Your task to perform on an android device: open app "TextNow: Call + Text Unlimited" (install if not already installed), go to login, and select forgot password Image 0: 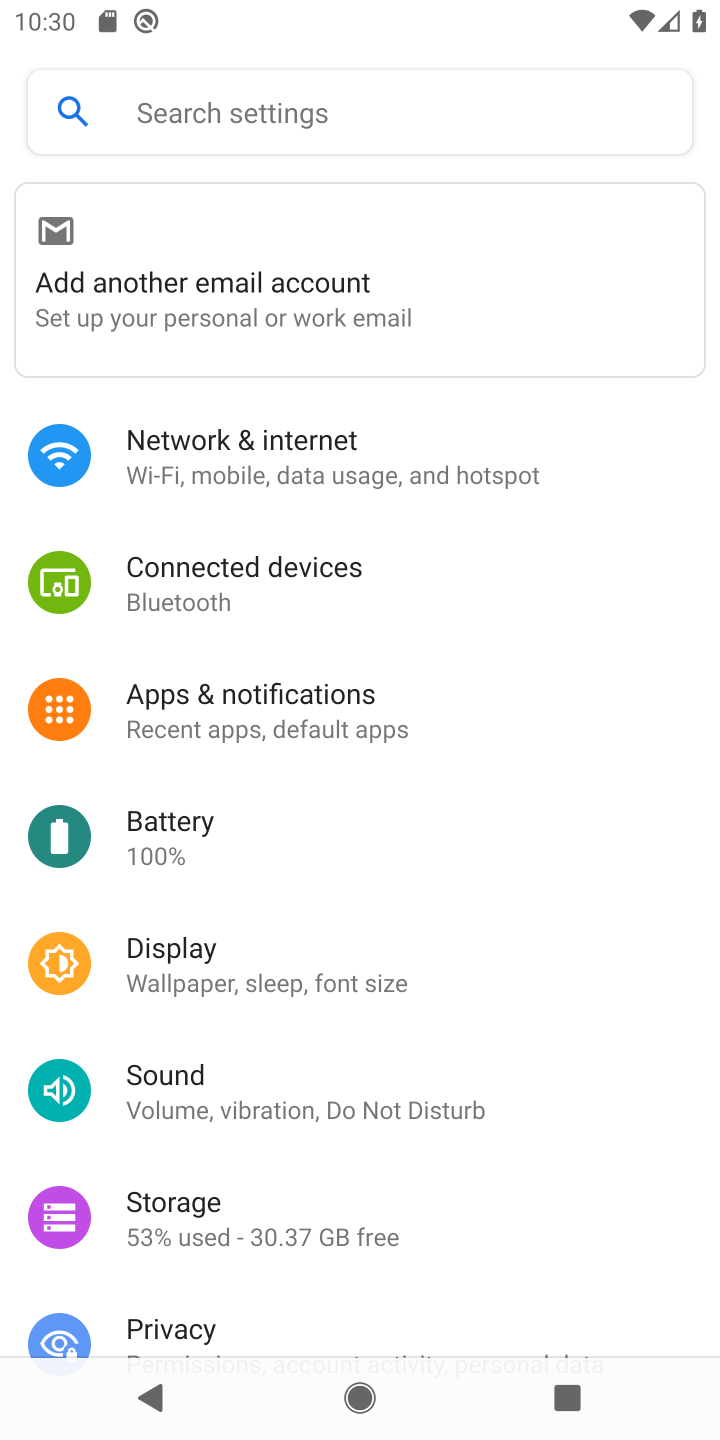
Step 0: press home button
Your task to perform on an android device: open app "TextNow: Call + Text Unlimited" (install if not already installed), go to login, and select forgot password Image 1: 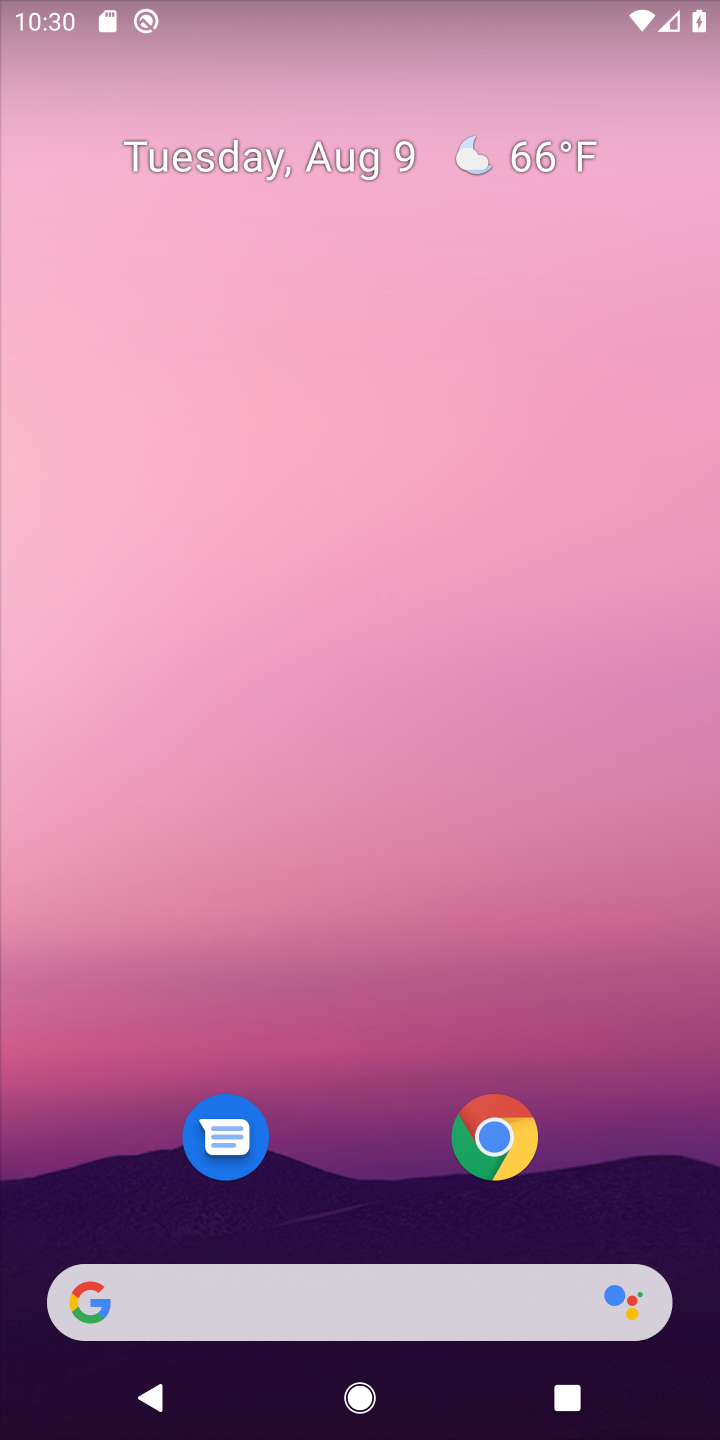
Step 1: drag from (291, 1081) to (301, 231)
Your task to perform on an android device: open app "TextNow: Call + Text Unlimited" (install if not already installed), go to login, and select forgot password Image 2: 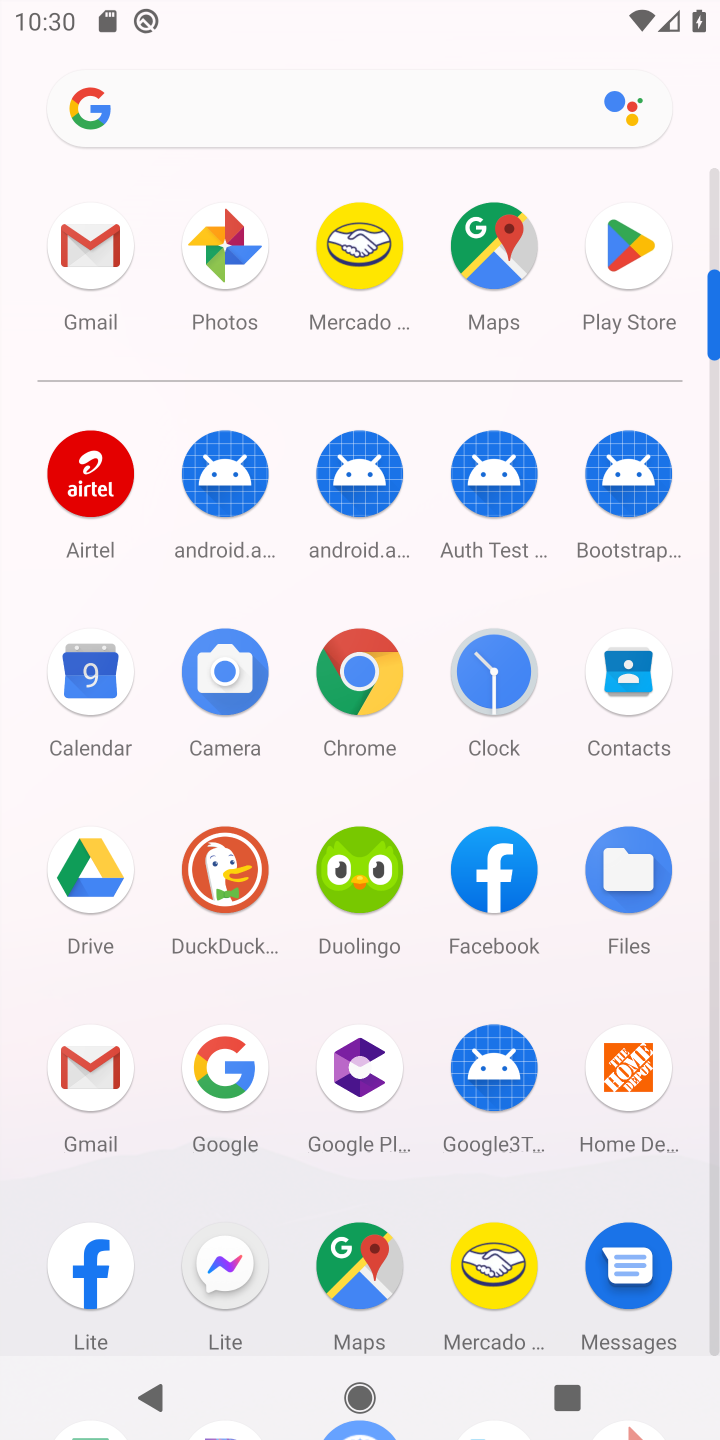
Step 2: click (605, 261)
Your task to perform on an android device: open app "TextNow: Call + Text Unlimited" (install if not already installed), go to login, and select forgot password Image 3: 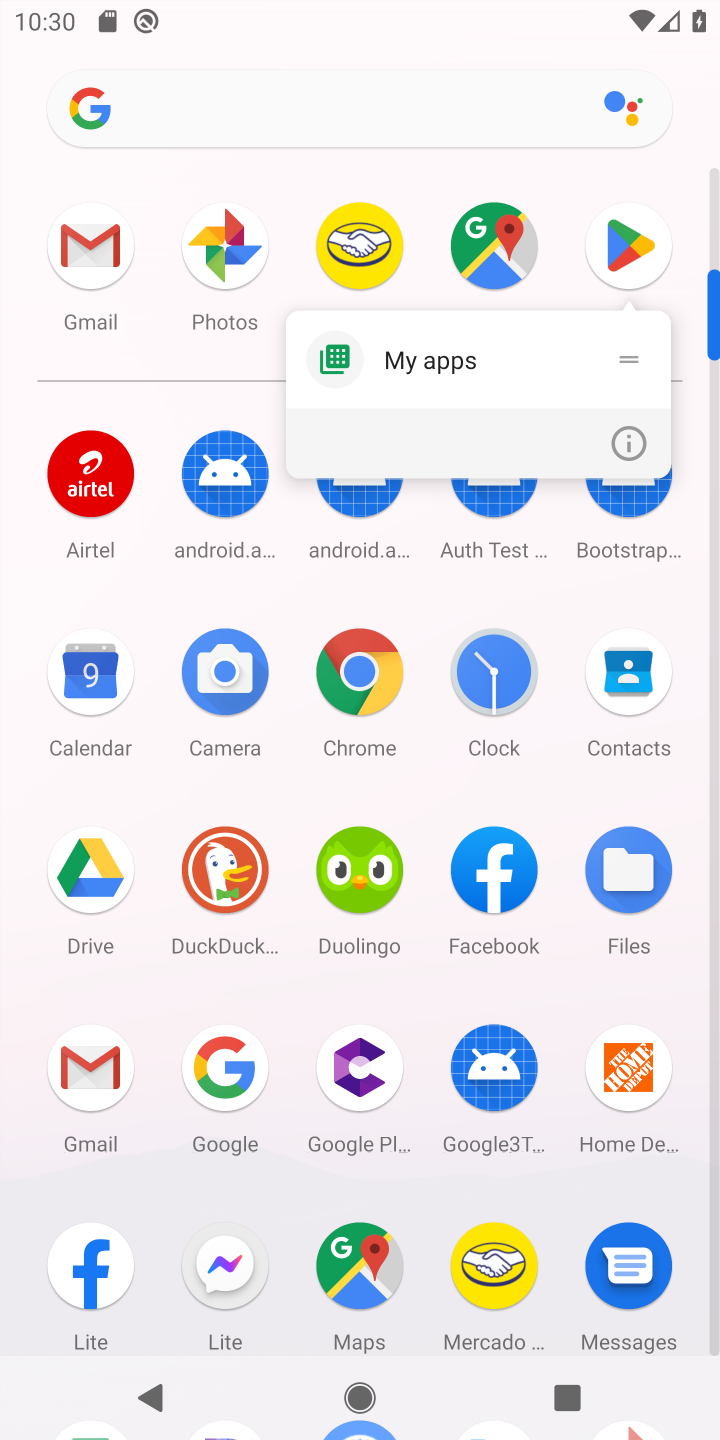
Step 3: click (616, 236)
Your task to perform on an android device: open app "TextNow: Call + Text Unlimited" (install if not already installed), go to login, and select forgot password Image 4: 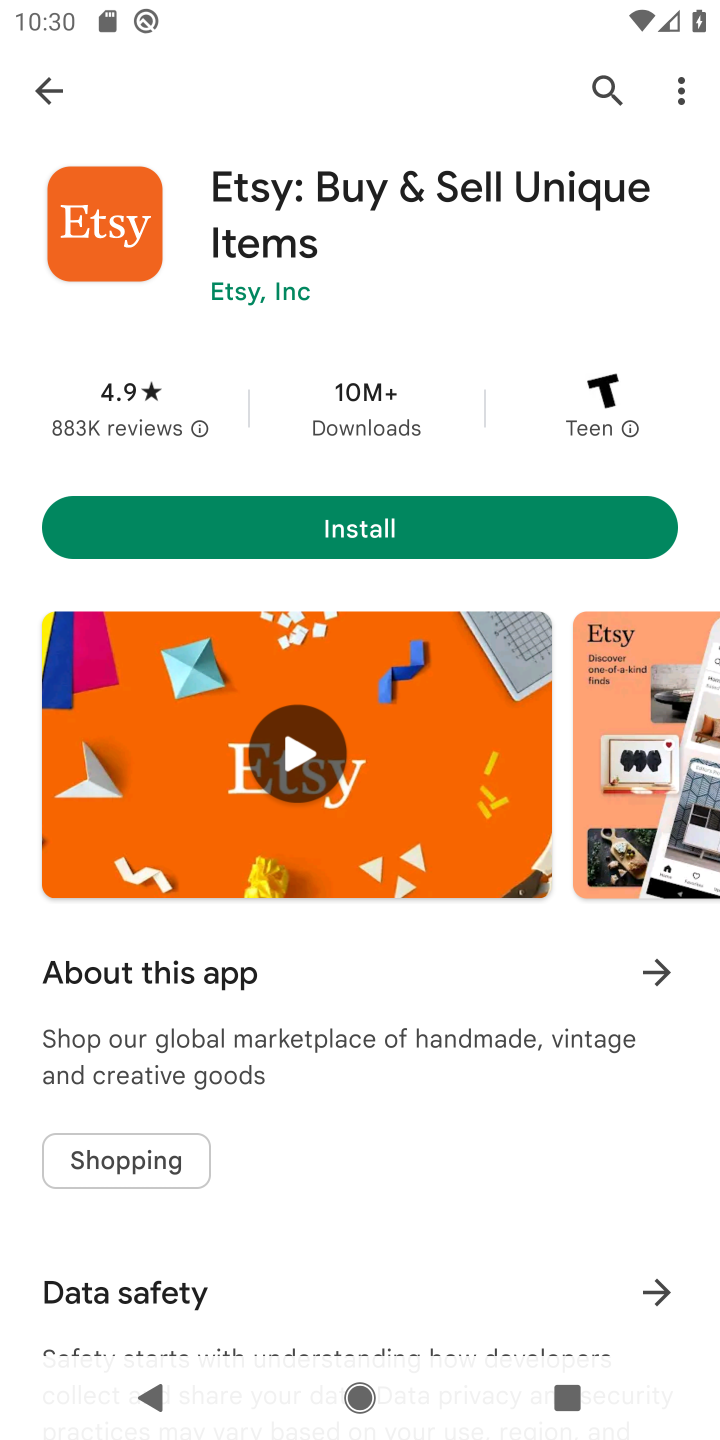
Step 4: click (618, 67)
Your task to perform on an android device: open app "TextNow: Call + Text Unlimited" (install if not already installed), go to login, and select forgot password Image 5: 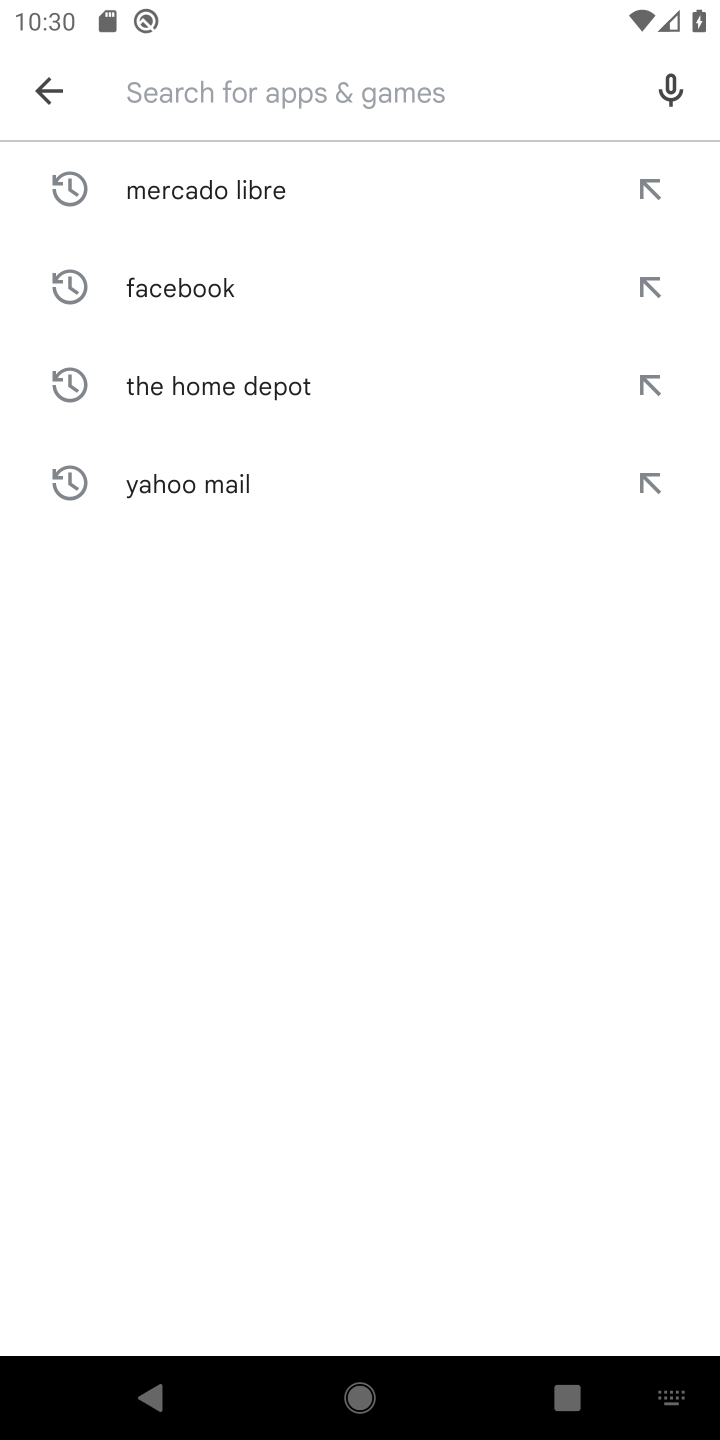
Step 5: type "TextNow: Call + Text Unlimited"
Your task to perform on an android device: open app "TextNow: Call + Text Unlimited" (install if not already installed), go to login, and select forgot password Image 6: 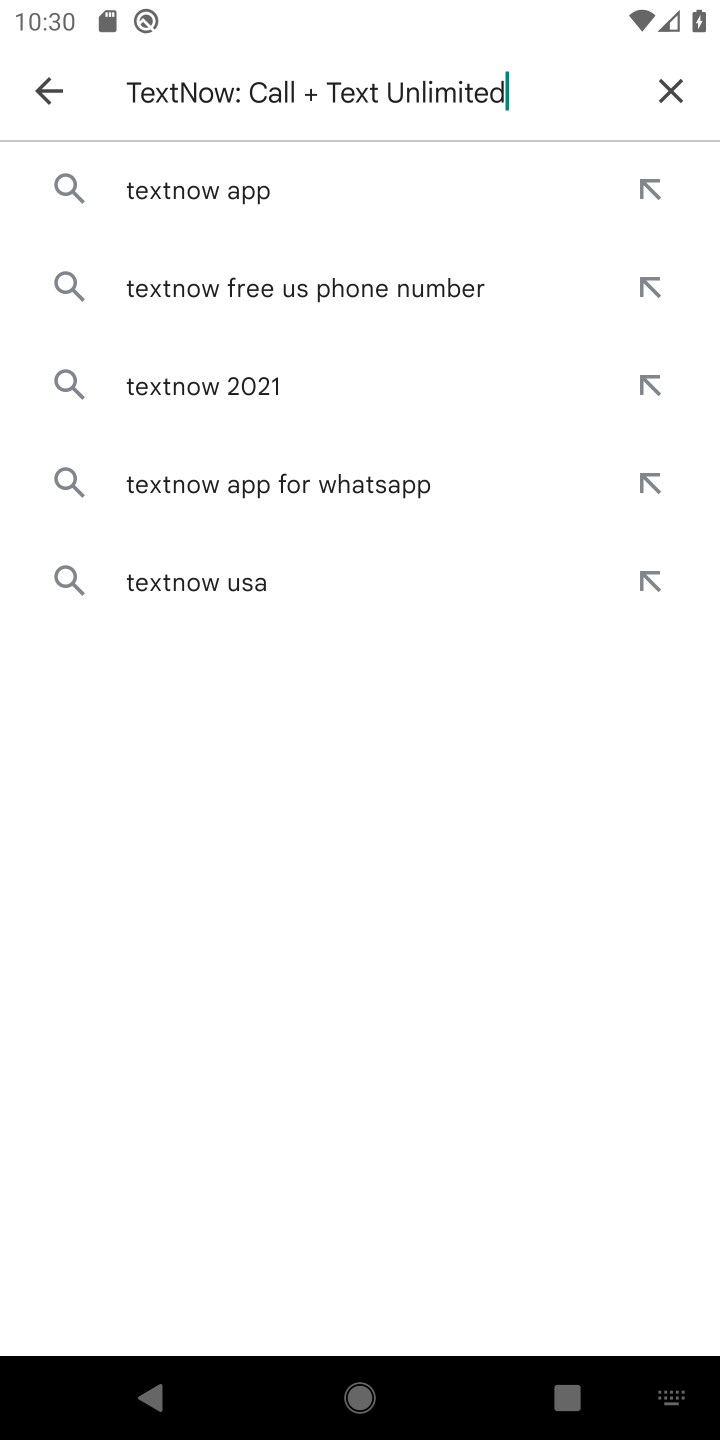
Step 6: type ""
Your task to perform on an android device: open app "TextNow: Call + Text Unlimited" (install if not already installed), go to login, and select forgot password Image 7: 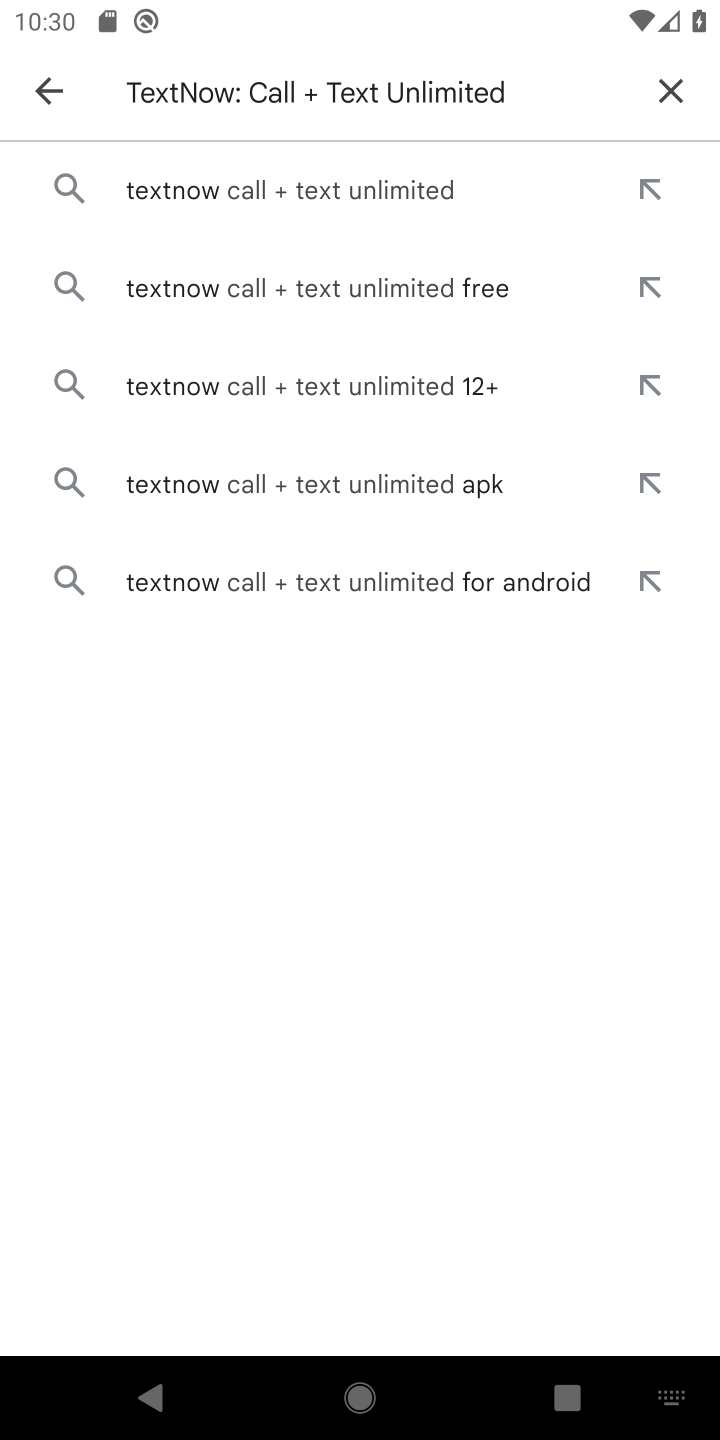
Step 7: click (289, 207)
Your task to perform on an android device: open app "TextNow: Call + Text Unlimited" (install if not already installed), go to login, and select forgot password Image 8: 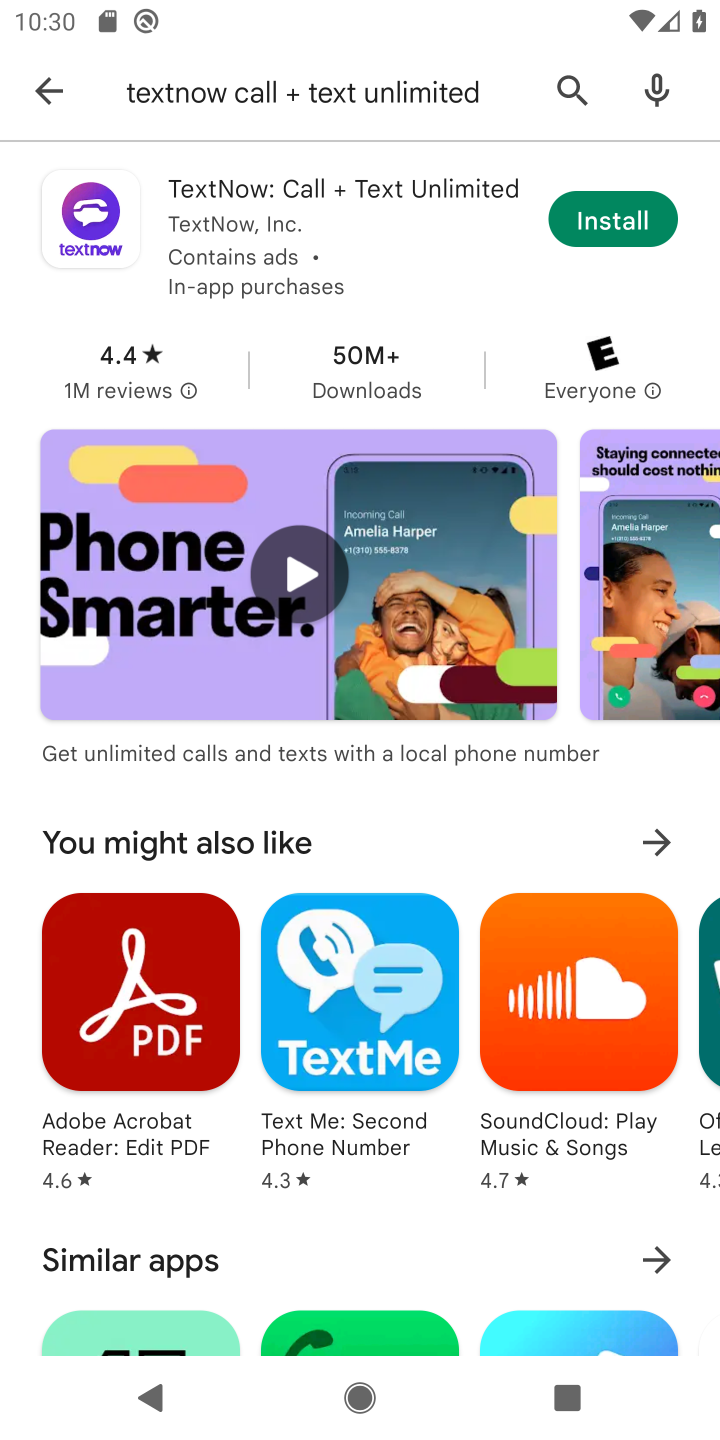
Step 8: click (657, 224)
Your task to perform on an android device: open app "TextNow: Call + Text Unlimited" (install if not already installed), go to login, and select forgot password Image 9: 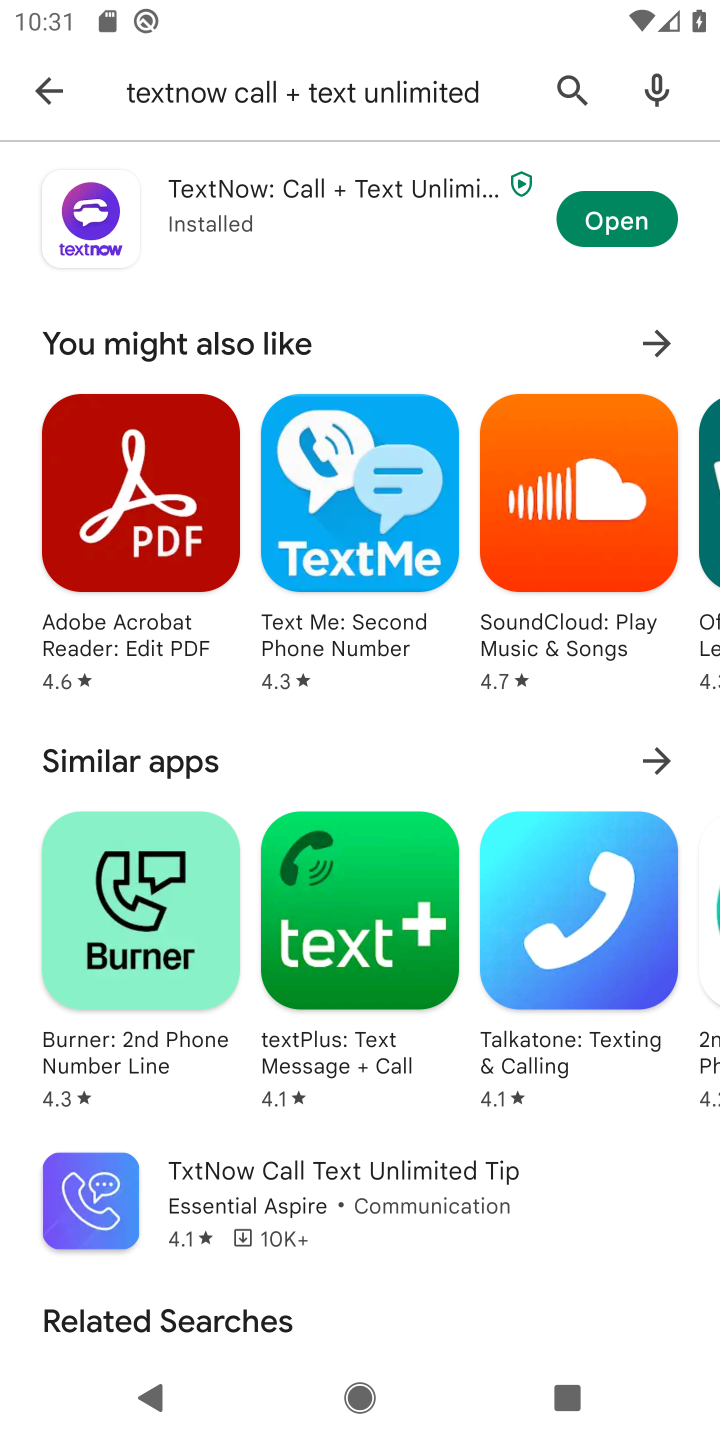
Step 9: click (571, 226)
Your task to perform on an android device: open app "TextNow: Call + Text Unlimited" (install if not already installed), go to login, and select forgot password Image 10: 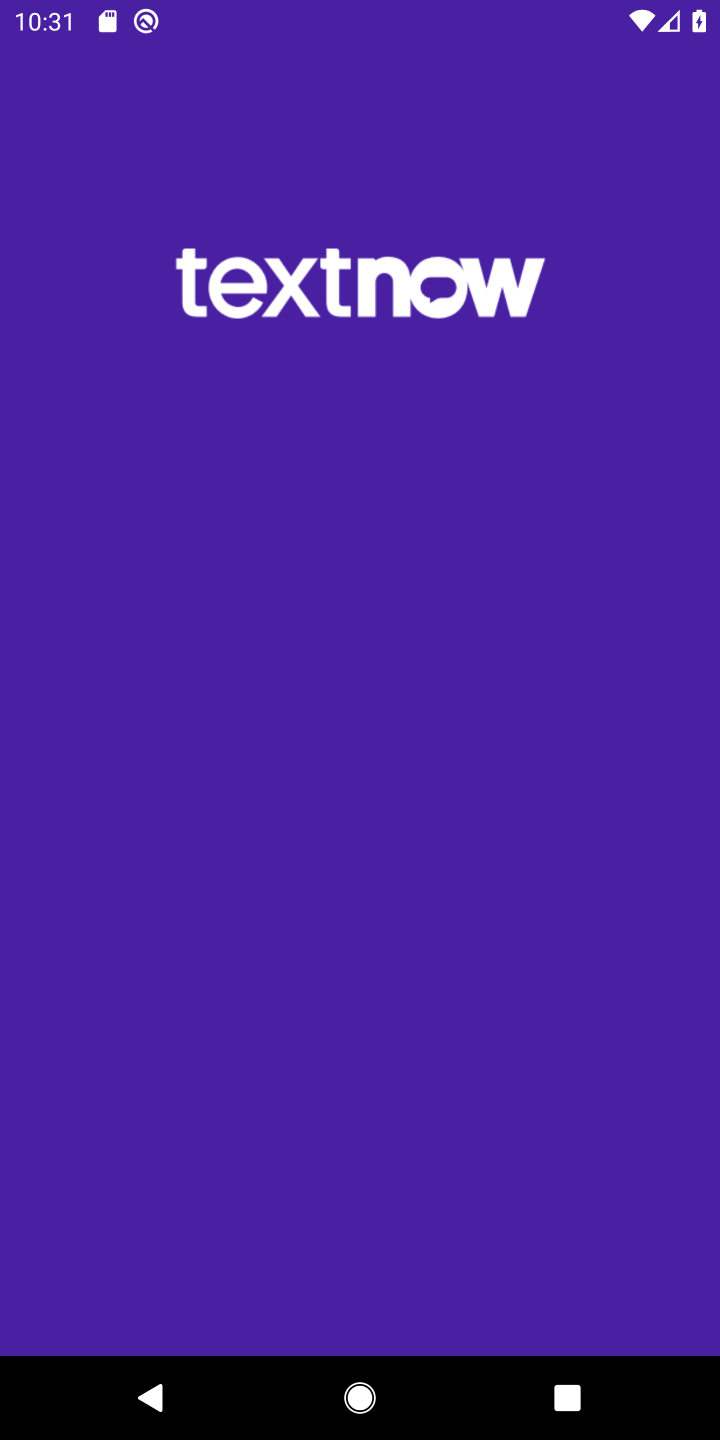
Step 10: task complete